Your task to perform on an android device: turn smart compose on in the gmail app Image 0: 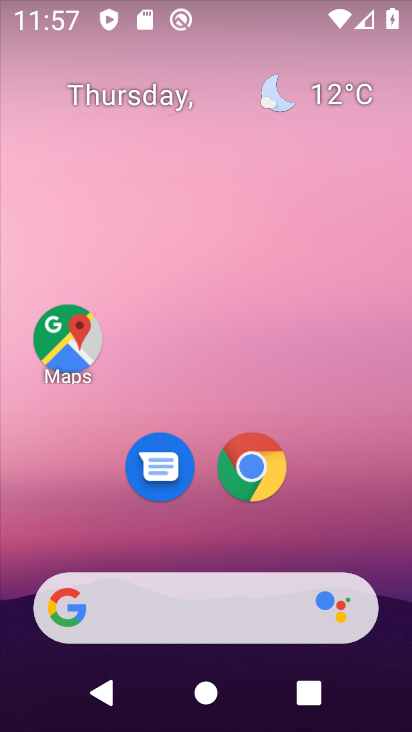
Step 0: drag from (392, 430) to (401, 135)
Your task to perform on an android device: turn smart compose on in the gmail app Image 1: 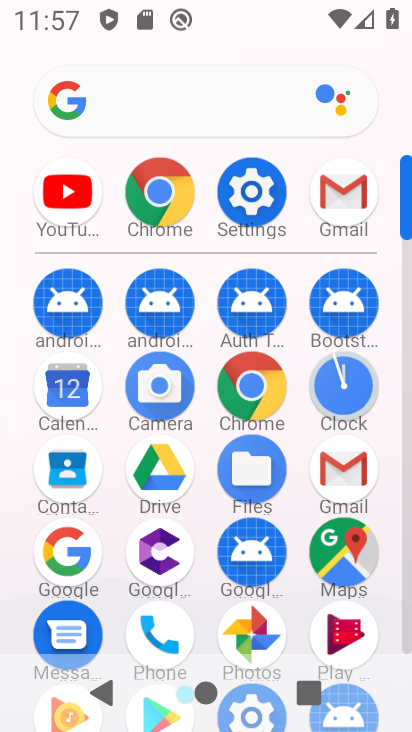
Step 1: click (350, 201)
Your task to perform on an android device: turn smart compose on in the gmail app Image 2: 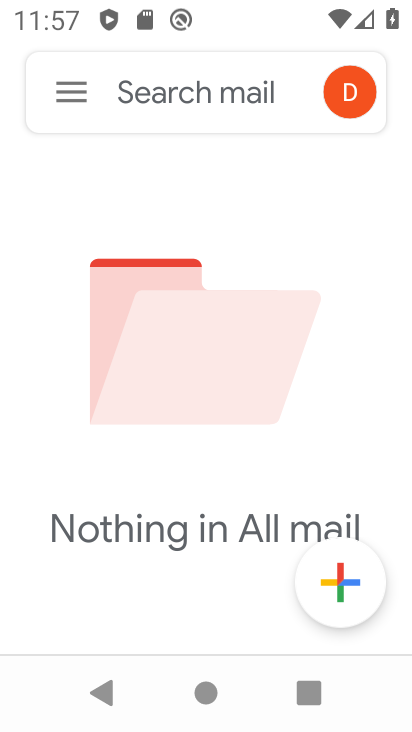
Step 2: click (86, 78)
Your task to perform on an android device: turn smart compose on in the gmail app Image 3: 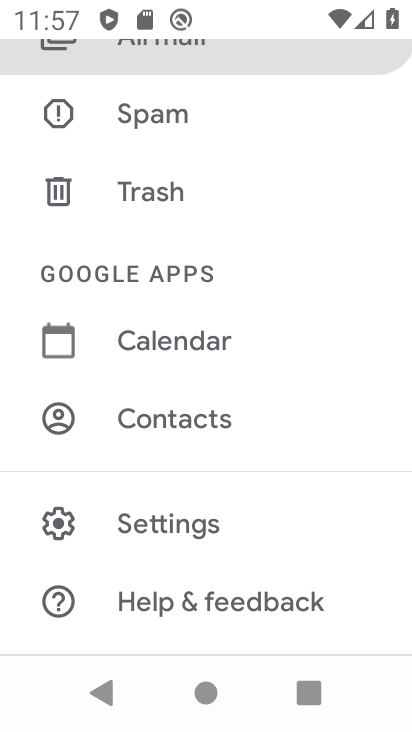
Step 3: click (158, 515)
Your task to perform on an android device: turn smart compose on in the gmail app Image 4: 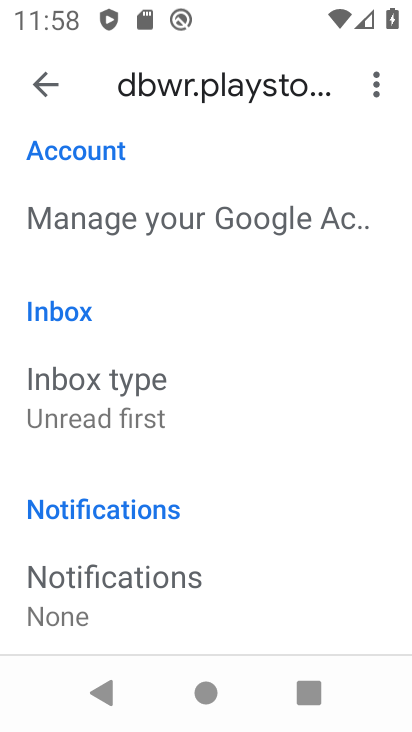
Step 4: task complete